Your task to perform on an android device: Open settings on Google Maps Image 0: 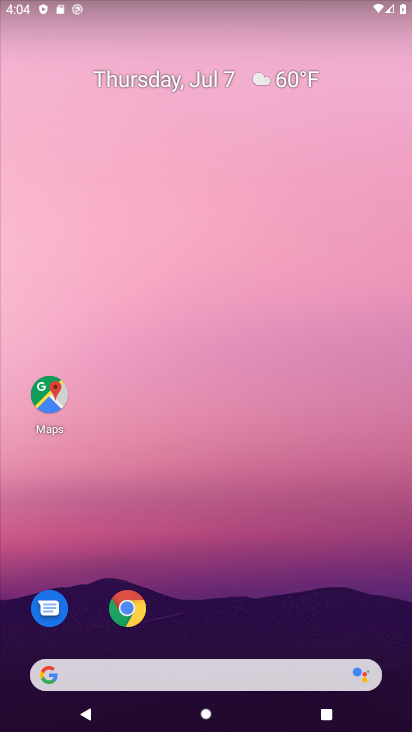
Step 0: drag from (270, 596) to (291, 296)
Your task to perform on an android device: Open settings on Google Maps Image 1: 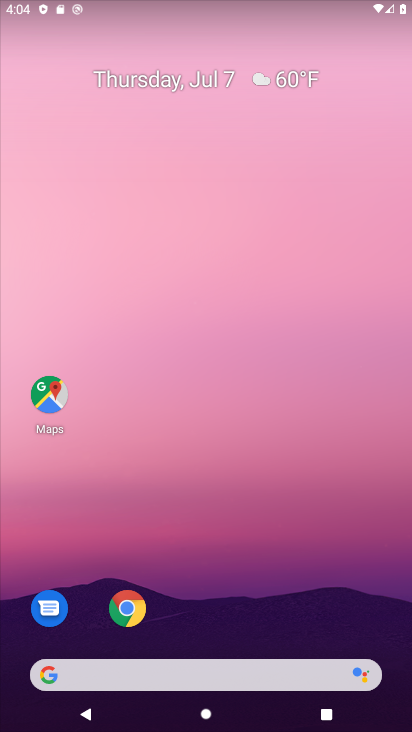
Step 1: click (60, 393)
Your task to perform on an android device: Open settings on Google Maps Image 2: 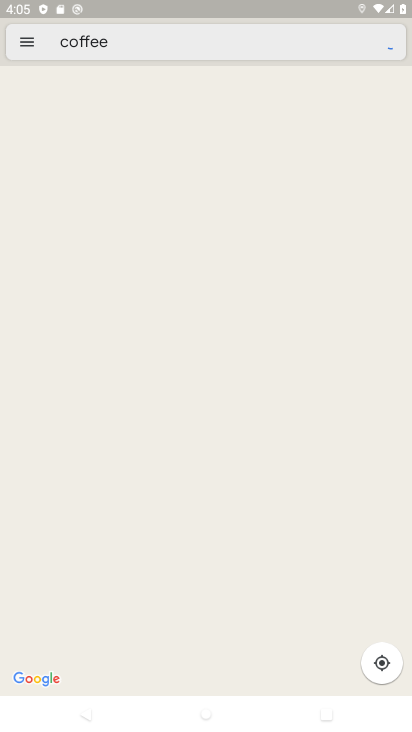
Step 2: click (26, 41)
Your task to perform on an android device: Open settings on Google Maps Image 3: 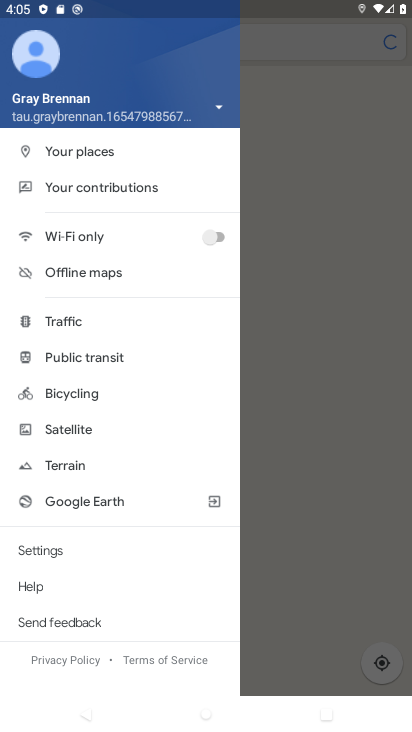
Step 3: click (70, 549)
Your task to perform on an android device: Open settings on Google Maps Image 4: 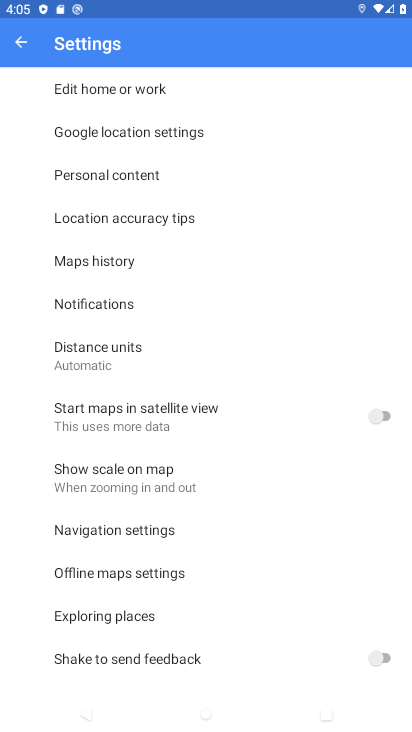
Step 4: task complete